Your task to perform on an android device: empty trash in google photos Image 0: 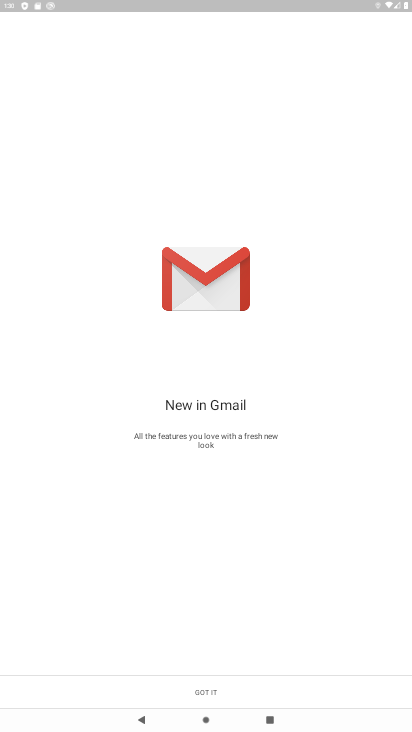
Step 0: click (183, 681)
Your task to perform on an android device: empty trash in google photos Image 1: 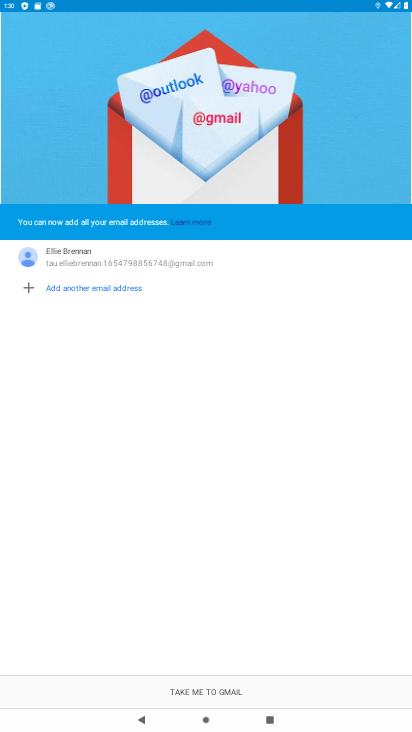
Step 1: press home button
Your task to perform on an android device: empty trash in google photos Image 2: 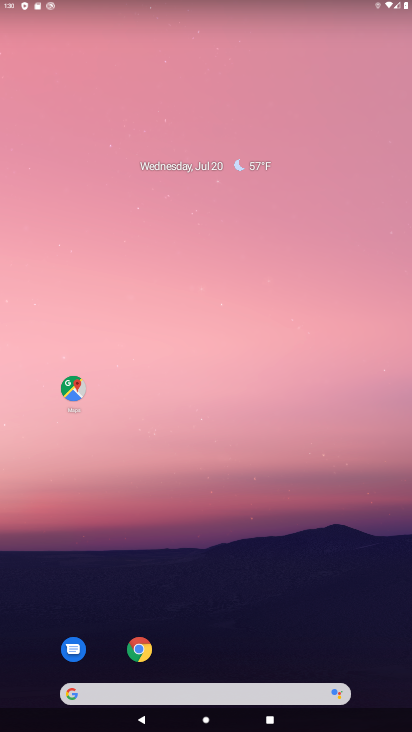
Step 2: drag from (172, 634) to (215, 139)
Your task to perform on an android device: empty trash in google photos Image 3: 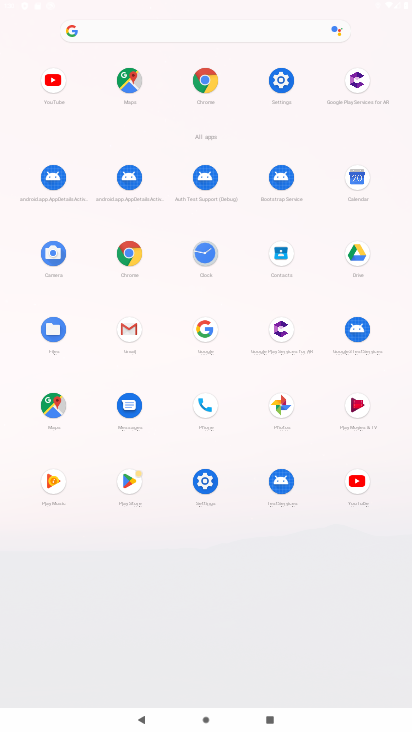
Step 3: click (283, 408)
Your task to perform on an android device: empty trash in google photos Image 4: 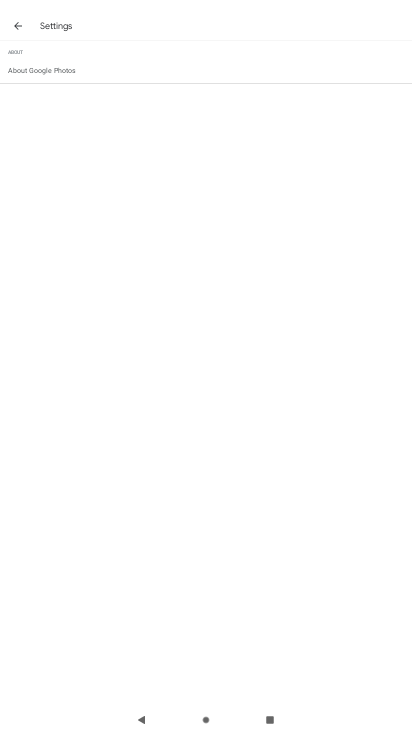
Step 4: click (24, 22)
Your task to perform on an android device: empty trash in google photos Image 5: 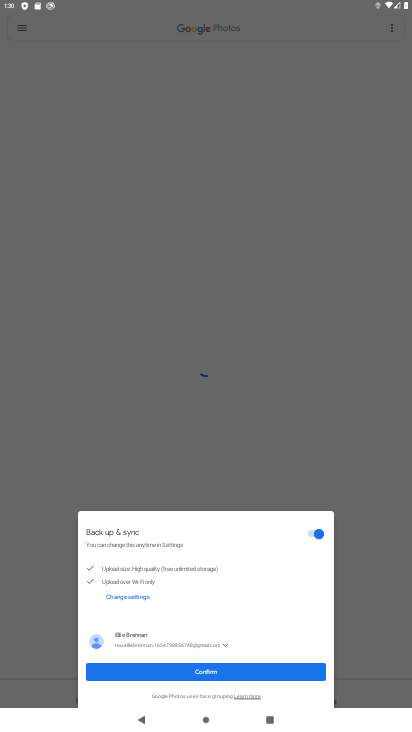
Step 5: click (222, 664)
Your task to perform on an android device: empty trash in google photos Image 6: 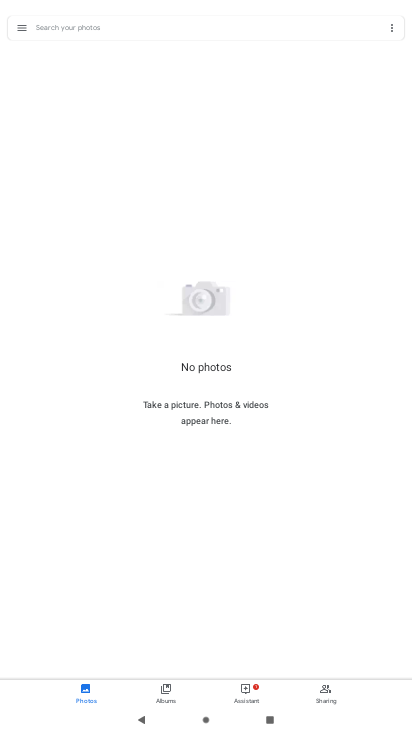
Step 6: click (22, 32)
Your task to perform on an android device: empty trash in google photos Image 7: 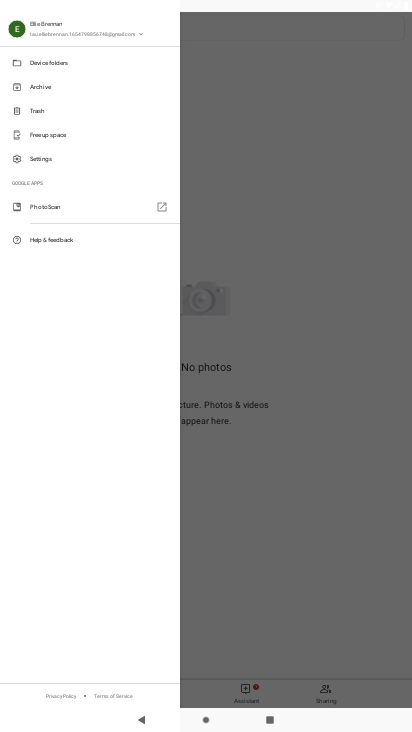
Step 7: click (60, 115)
Your task to perform on an android device: empty trash in google photos Image 8: 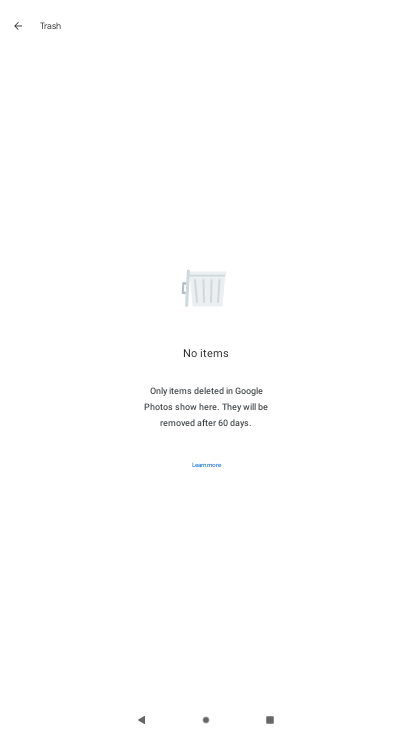
Step 8: task complete